Your task to perform on an android device: Open the phone app and click the voicemail tab. Image 0: 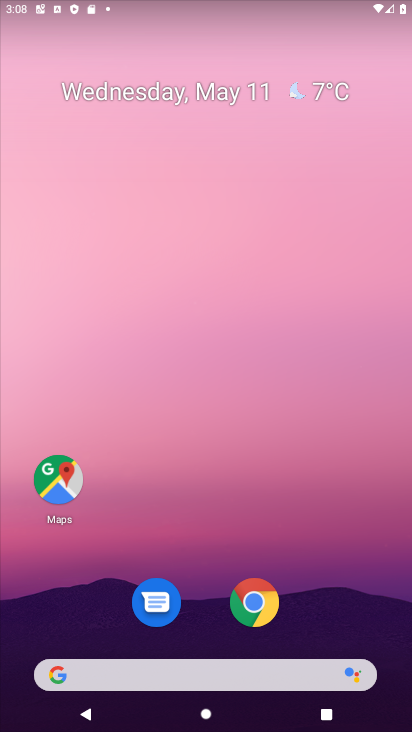
Step 0: drag from (313, 619) to (209, 221)
Your task to perform on an android device: Open the phone app and click the voicemail tab. Image 1: 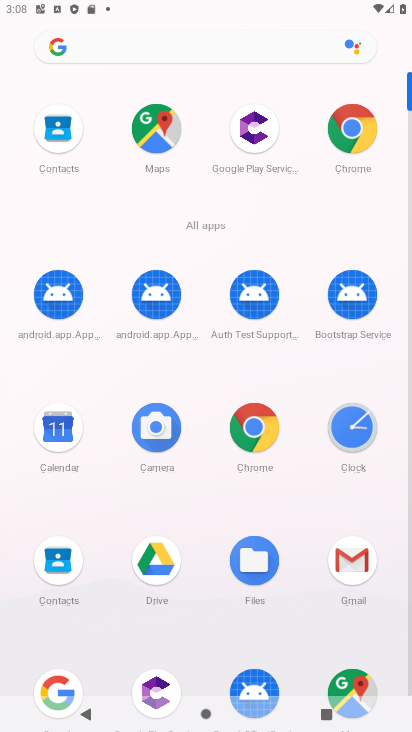
Step 1: drag from (206, 611) to (261, 208)
Your task to perform on an android device: Open the phone app and click the voicemail tab. Image 2: 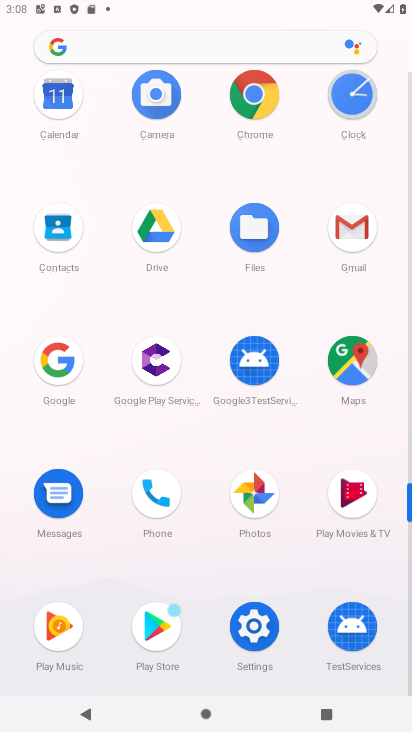
Step 2: click (137, 510)
Your task to perform on an android device: Open the phone app and click the voicemail tab. Image 3: 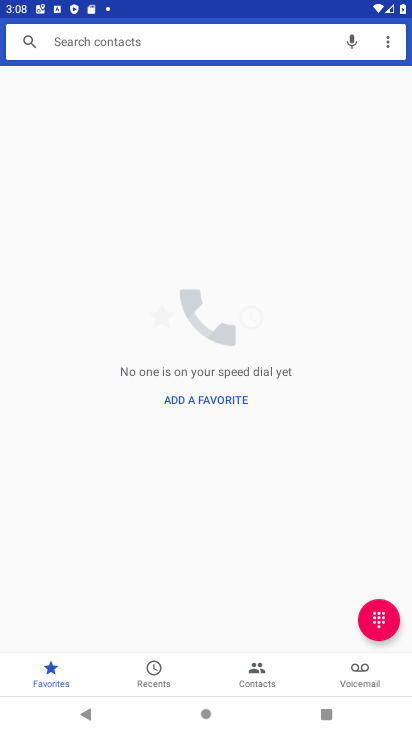
Step 3: click (346, 677)
Your task to perform on an android device: Open the phone app and click the voicemail tab. Image 4: 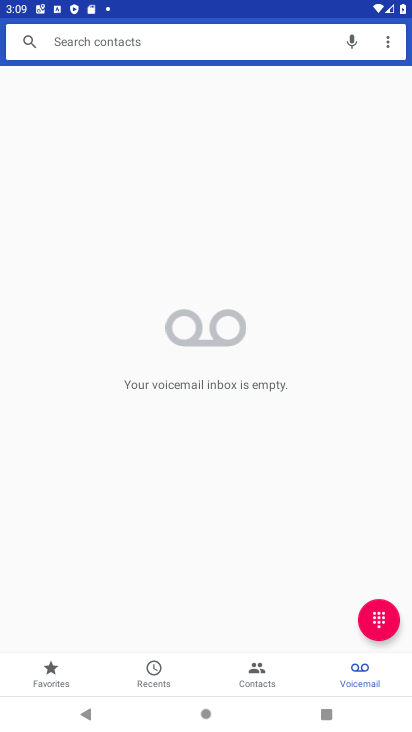
Step 4: click (347, 677)
Your task to perform on an android device: Open the phone app and click the voicemail tab. Image 5: 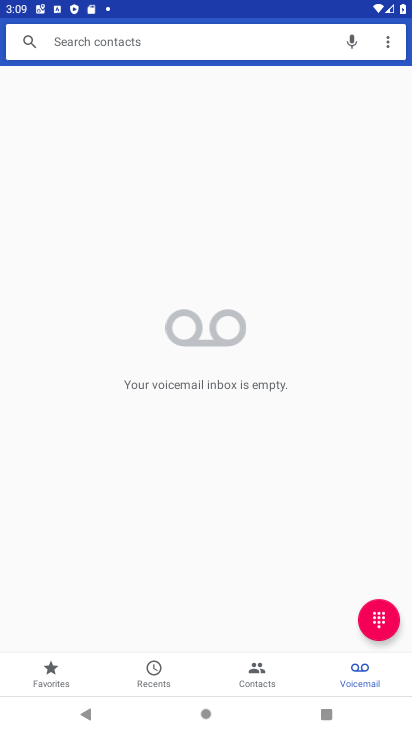
Step 5: task complete